Your task to perform on an android device: Open settings on Google Maps Image 0: 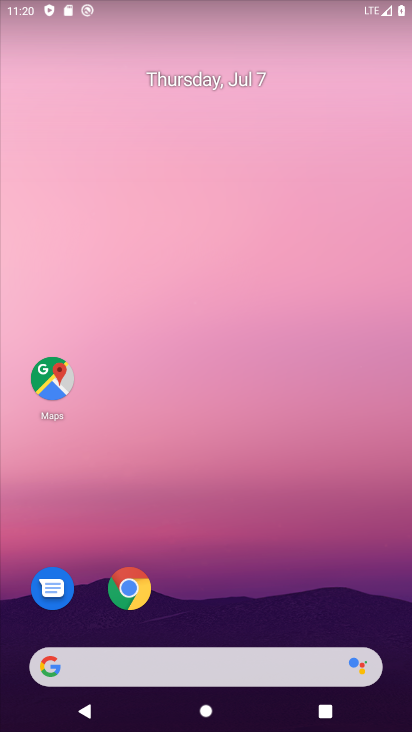
Step 0: click (55, 384)
Your task to perform on an android device: Open settings on Google Maps Image 1: 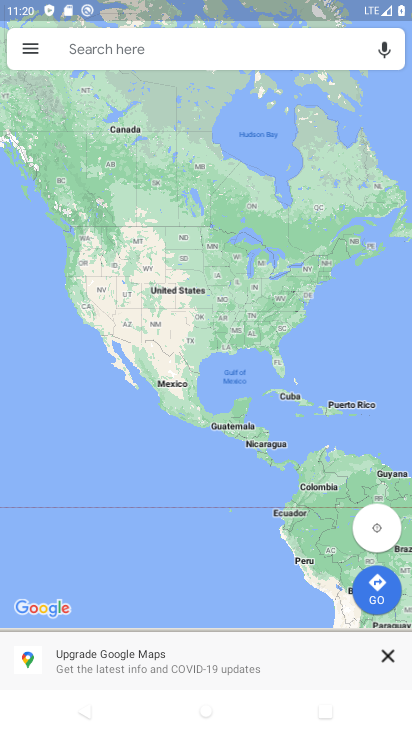
Step 1: click (25, 43)
Your task to perform on an android device: Open settings on Google Maps Image 2: 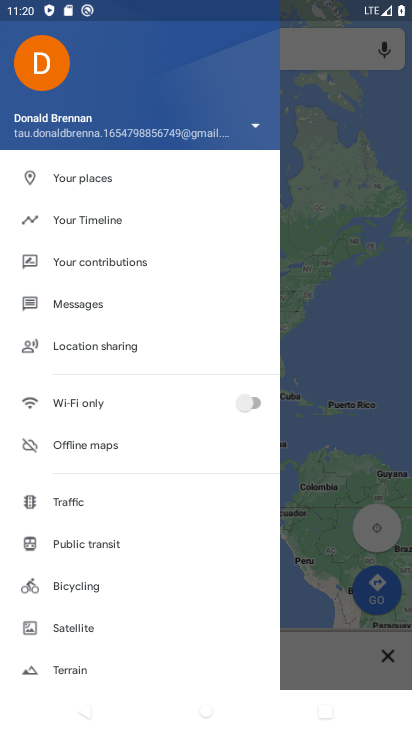
Step 2: drag from (88, 622) to (78, 238)
Your task to perform on an android device: Open settings on Google Maps Image 3: 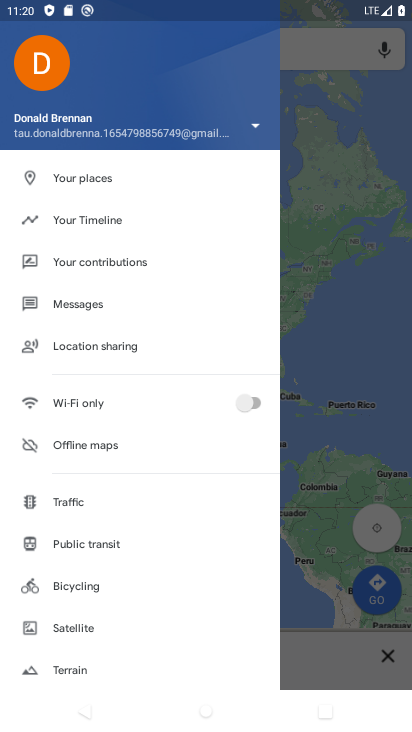
Step 3: drag from (76, 501) to (65, 167)
Your task to perform on an android device: Open settings on Google Maps Image 4: 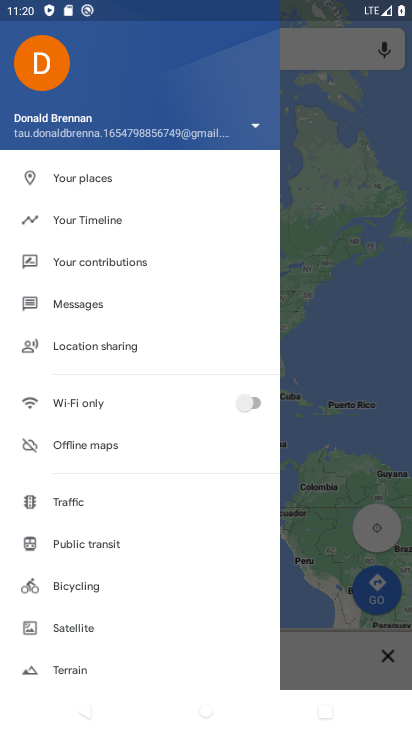
Step 4: drag from (132, 562) to (148, 185)
Your task to perform on an android device: Open settings on Google Maps Image 5: 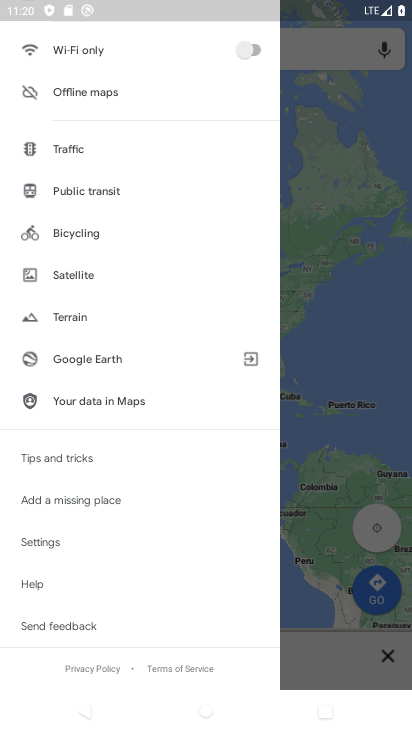
Step 5: click (37, 544)
Your task to perform on an android device: Open settings on Google Maps Image 6: 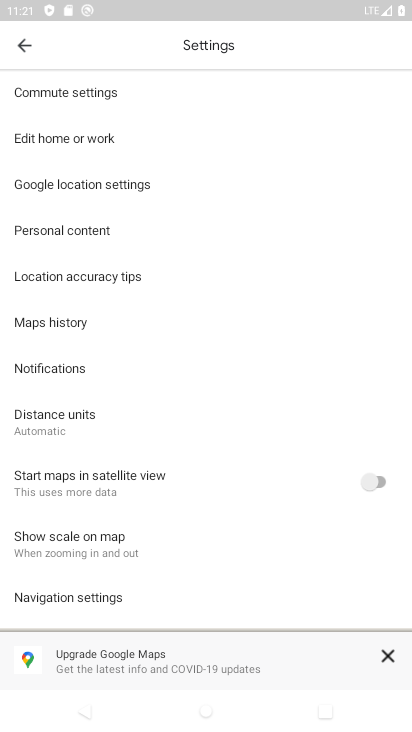
Step 6: task complete